Your task to perform on an android device: turn notification dots off Image 0: 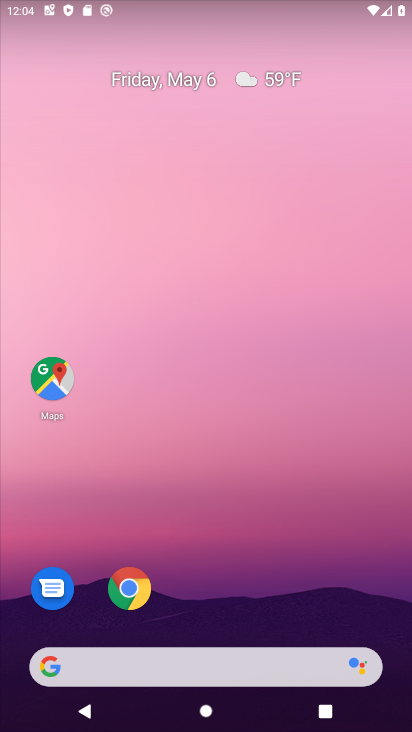
Step 0: drag from (287, 521) to (310, 30)
Your task to perform on an android device: turn notification dots off Image 1: 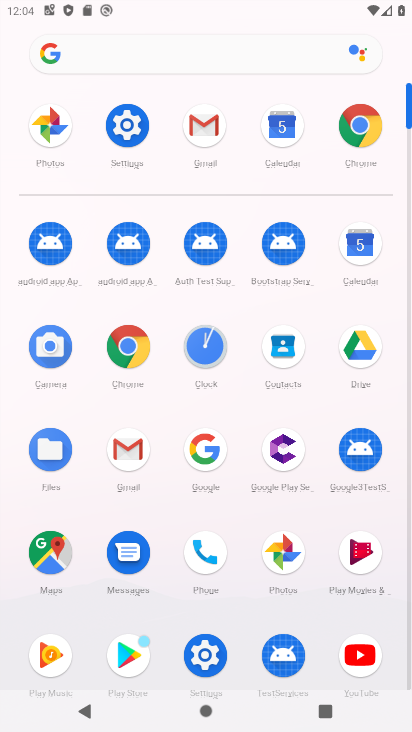
Step 1: click (134, 121)
Your task to perform on an android device: turn notification dots off Image 2: 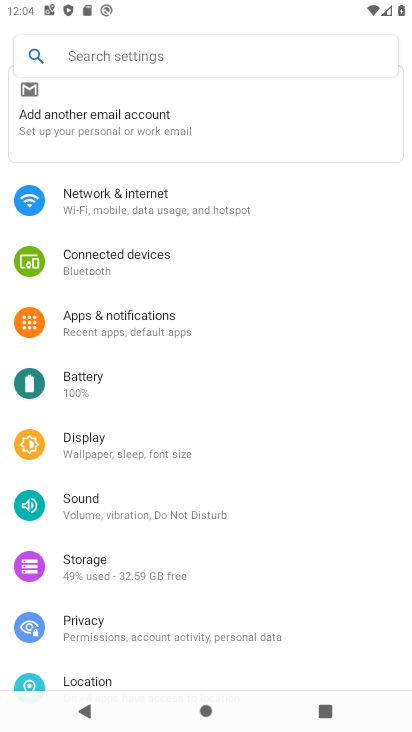
Step 2: drag from (248, 580) to (271, 177)
Your task to perform on an android device: turn notification dots off Image 3: 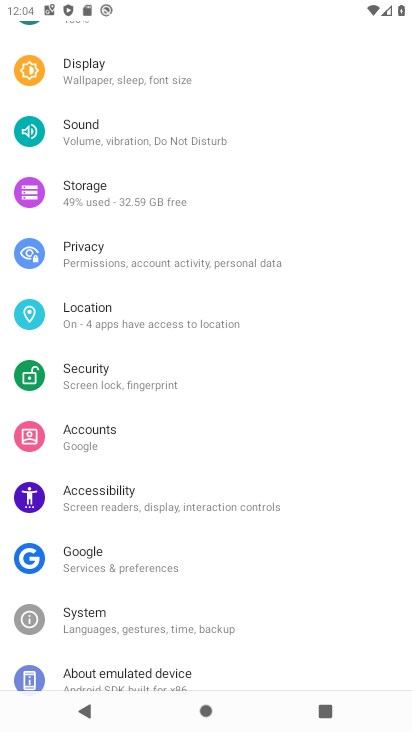
Step 3: drag from (214, 172) to (210, 507)
Your task to perform on an android device: turn notification dots off Image 4: 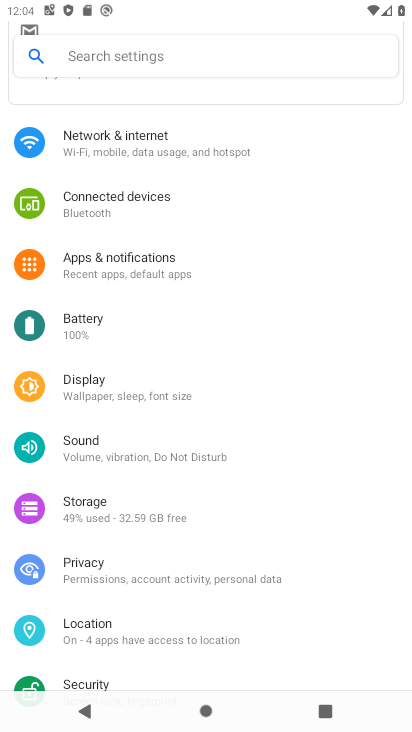
Step 4: click (171, 264)
Your task to perform on an android device: turn notification dots off Image 5: 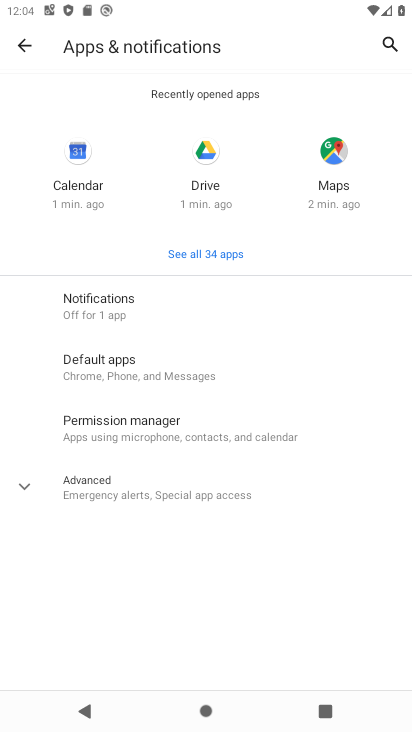
Step 5: click (155, 300)
Your task to perform on an android device: turn notification dots off Image 6: 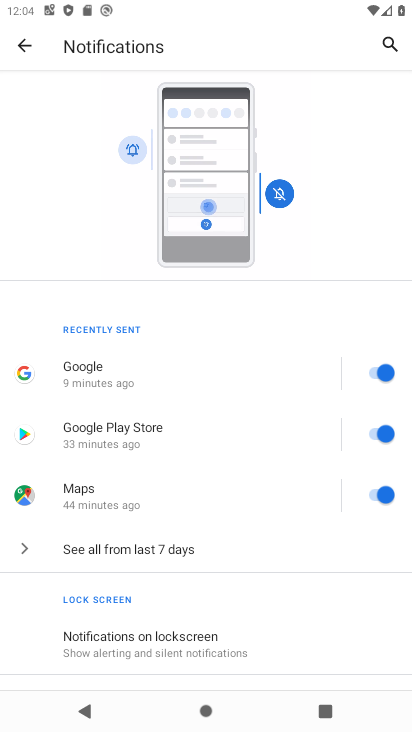
Step 6: drag from (184, 610) to (236, 373)
Your task to perform on an android device: turn notification dots off Image 7: 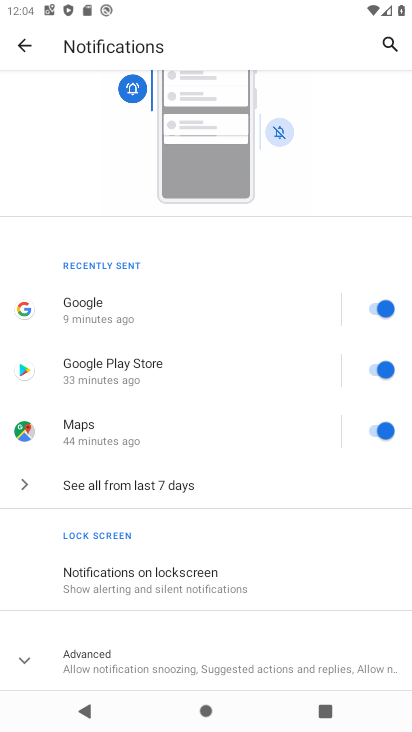
Step 7: click (21, 654)
Your task to perform on an android device: turn notification dots off Image 8: 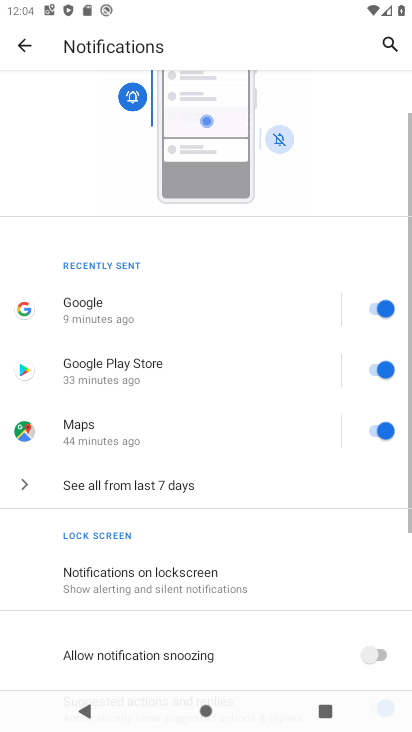
Step 8: drag from (272, 629) to (320, 360)
Your task to perform on an android device: turn notification dots off Image 9: 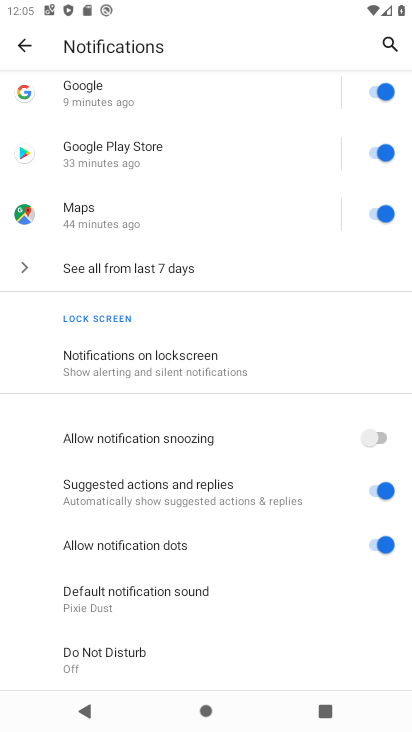
Step 9: click (365, 538)
Your task to perform on an android device: turn notification dots off Image 10: 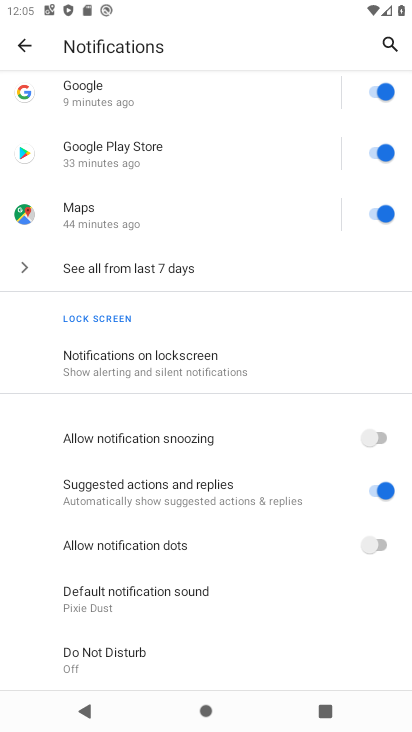
Step 10: task complete